Your task to perform on an android device: turn off picture-in-picture Image 0: 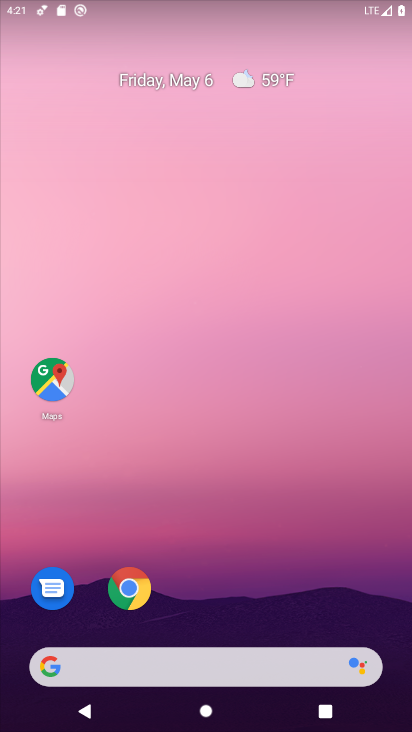
Step 0: click (127, 596)
Your task to perform on an android device: turn off picture-in-picture Image 1: 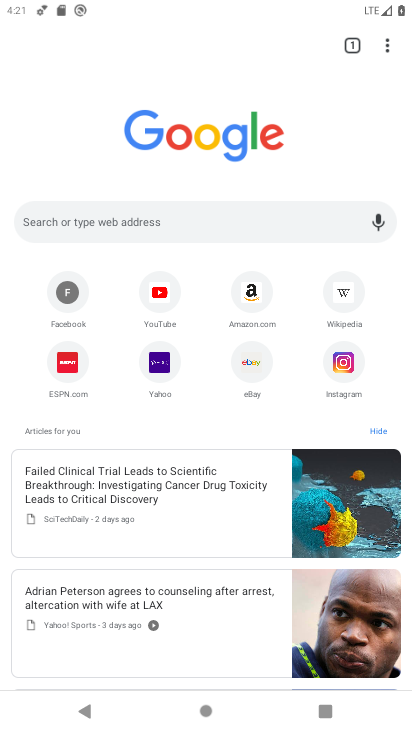
Step 1: press home button
Your task to perform on an android device: turn off picture-in-picture Image 2: 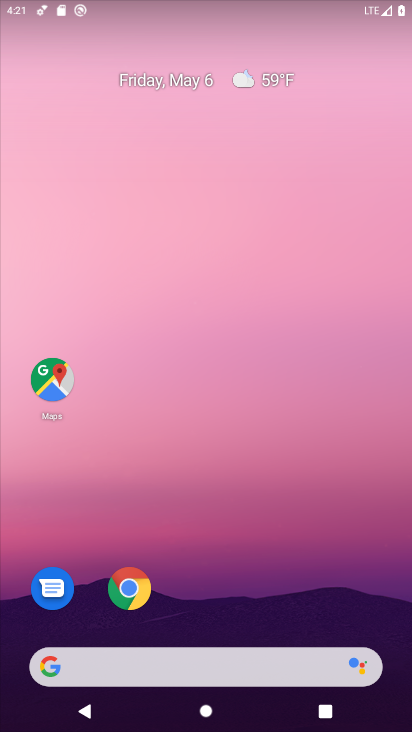
Step 2: drag from (229, 722) to (231, 297)
Your task to perform on an android device: turn off picture-in-picture Image 3: 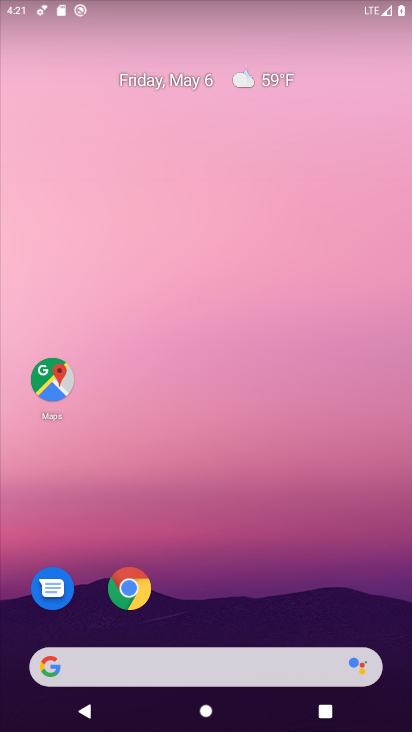
Step 3: drag from (210, 723) to (213, 283)
Your task to perform on an android device: turn off picture-in-picture Image 4: 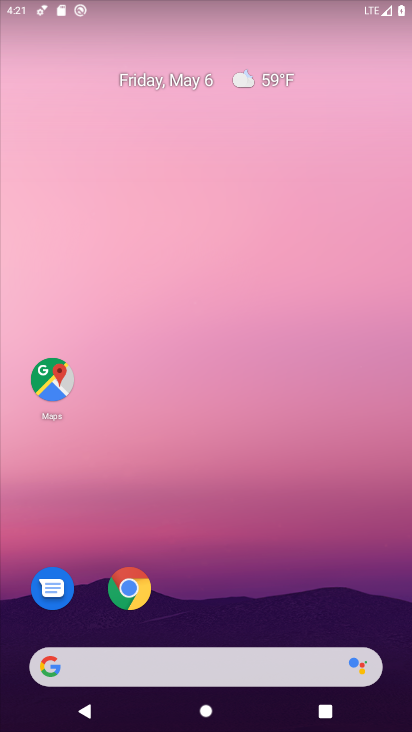
Step 4: drag from (207, 729) to (203, 113)
Your task to perform on an android device: turn off picture-in-picture Image 5: 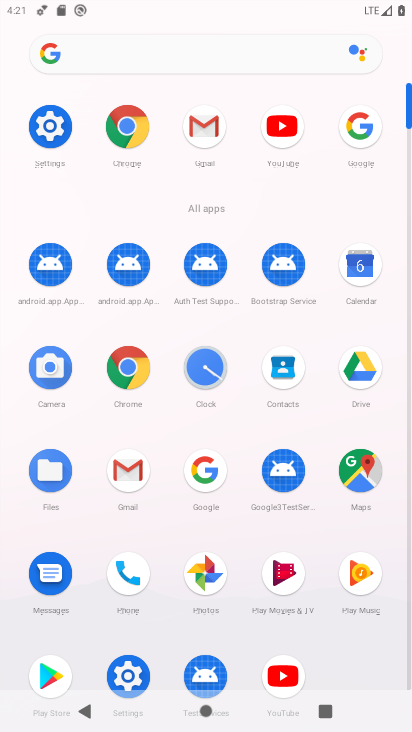
Step 5: click (51, 124)
Your task to perform on an android device: turn off picture-in-picture Image 6: 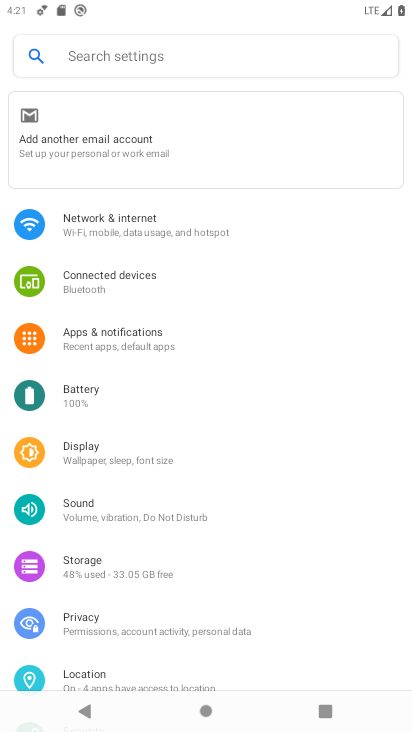
Step 6: drag from (131, 666) to (126, 508)
Your task to perform on an android device: turn off picture-in-picture Image 7: 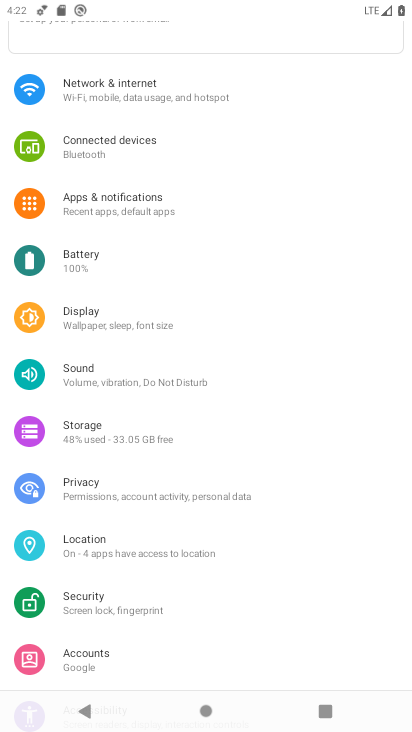
Step 7: click (122, 200)
Your task to perform on an android device: turn off picture-in-picture Image 8: 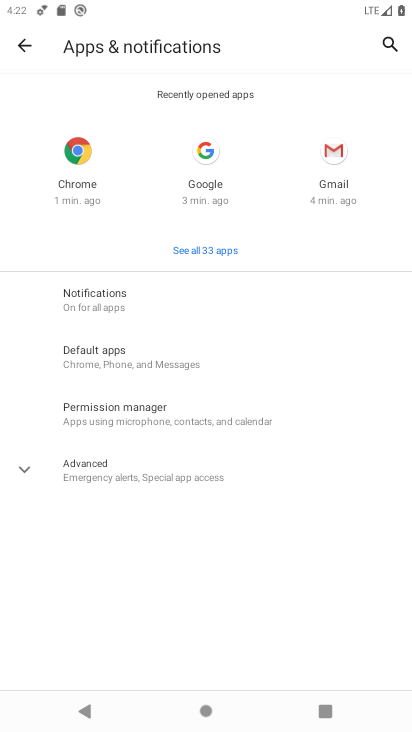
Step 8: click (120, 206)
Your task to perform on an android device: turn off picture-in-picture Image 9: 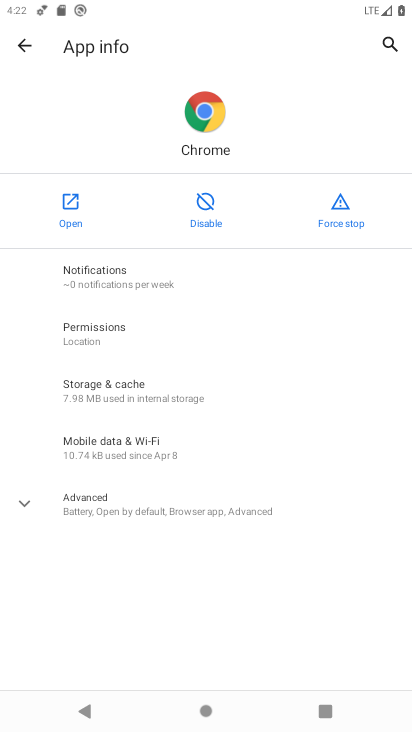
Step 9: click (96, 506)
Your task to perform on an android device: turn off picture-in-picture Image 10: 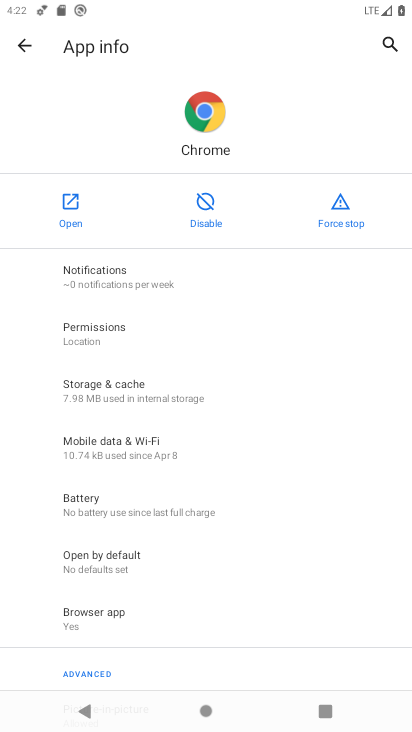
Step 10: drag from (137, 662) to (160, 368)
Your task to perform on an android device: turn off picture-in-picture Image 11: 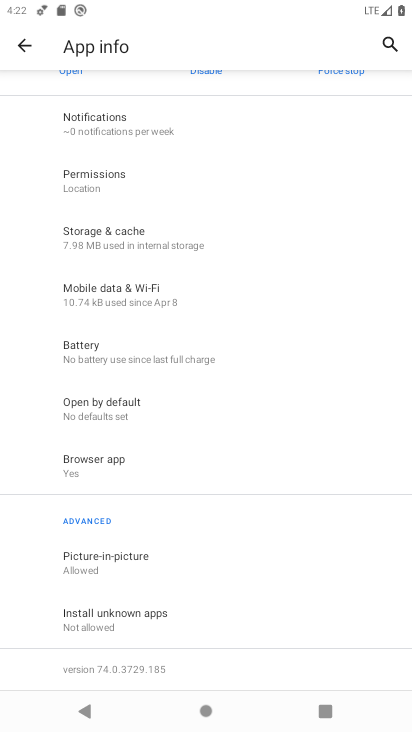
Step 11: drag from (140, 635) to (150, 471)
Your task to perform on an android device: turn off picture-in-picture Image 12: 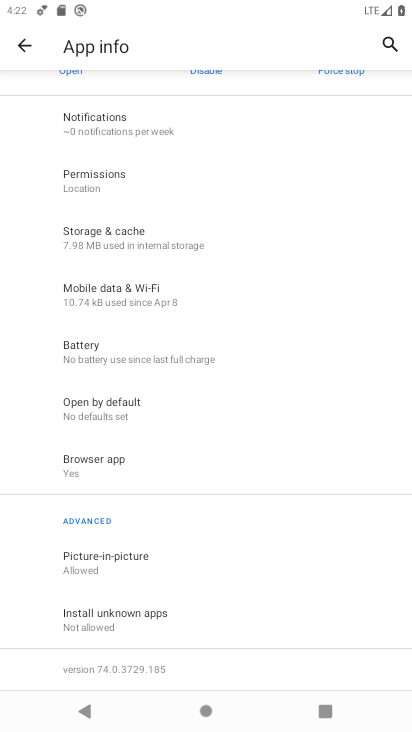
Step 12: click (112, 553)
Your task to perform on an android device: turn off picture-in-picture Image 13: 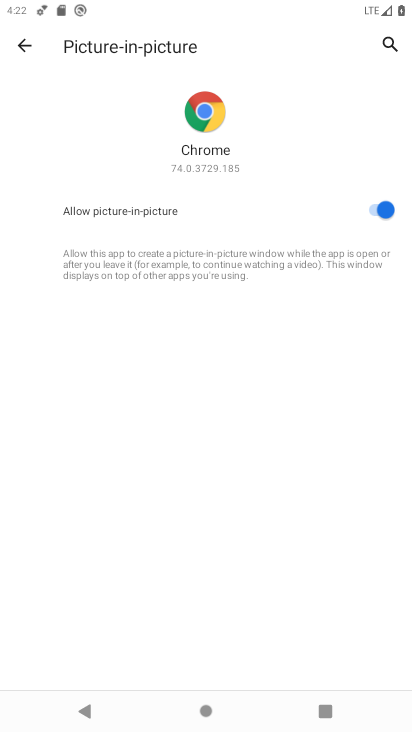
Step 13: click (372, 204)
Your task to perform on an android device: turn off picture-in-picture Image 14: 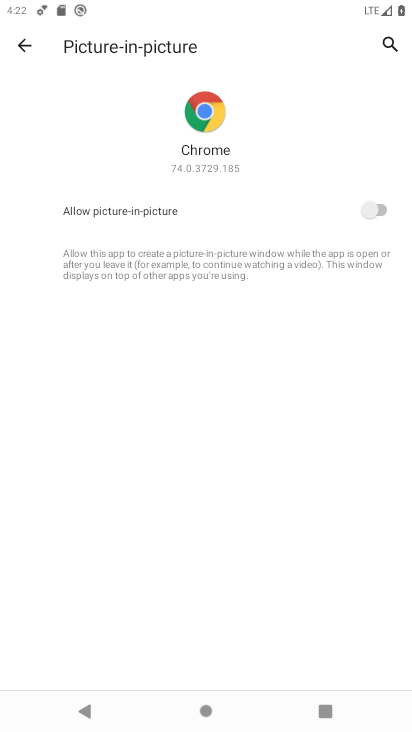
Step 14: task complete